Your task to perform on an android device: install app "LinkedIn" Image 0: 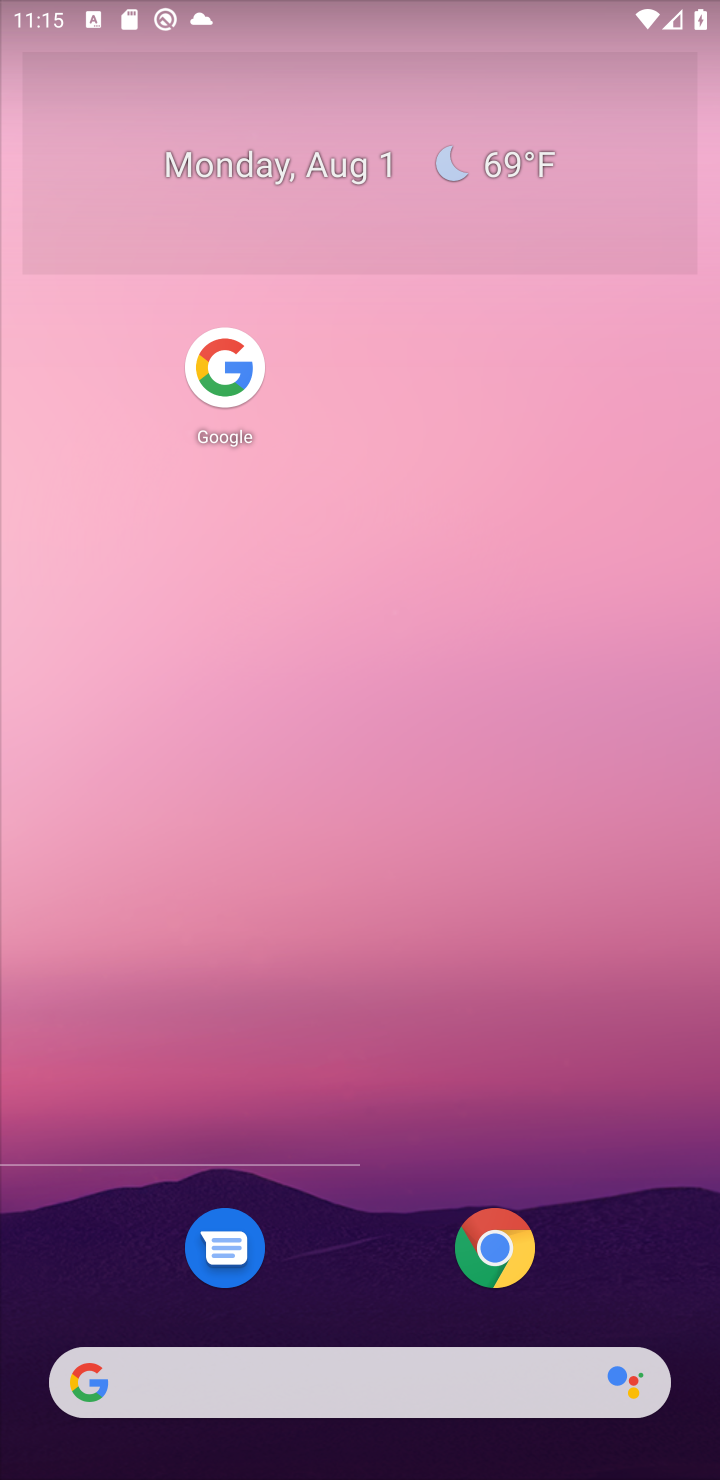
Step 0: drag from (477, 963) to (571, 129)
Your task to perform on an android device: install app "LinkedIn" Image 1: 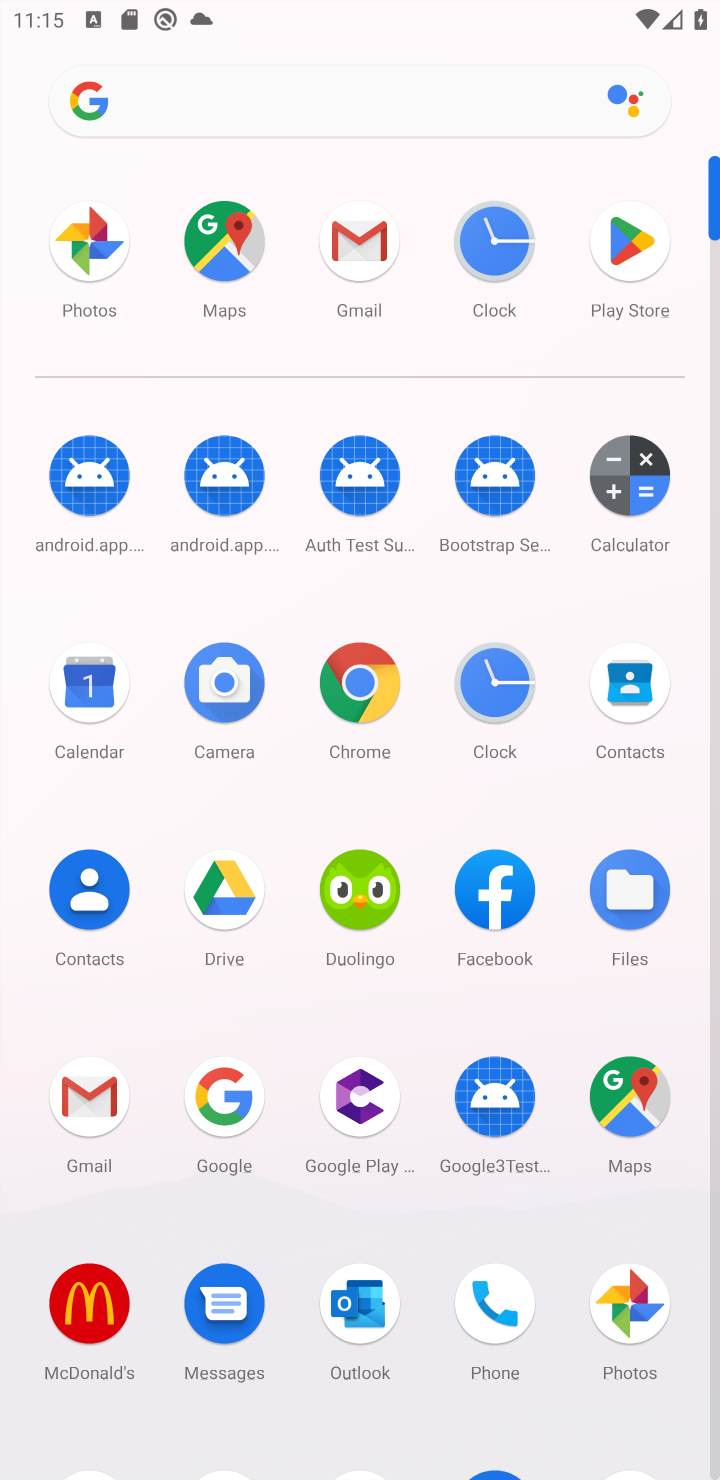
Step 1: drag from (287, 1214) to (369, 388)
Your task to perform on an android device: install app "LinkedIn" Image 2: 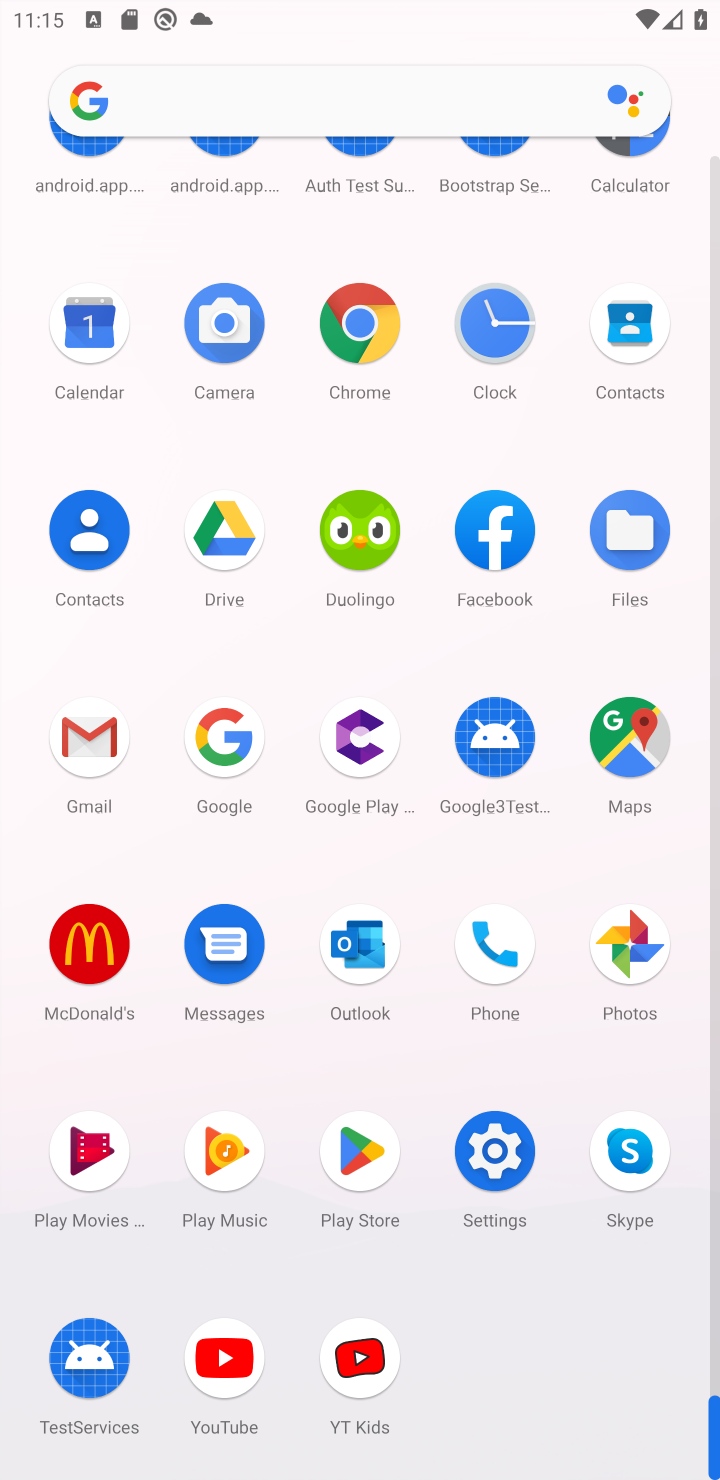
Step 2: click (363, 1153)
Your task to perform on an android device: install app "LinkedIn" Image 3: 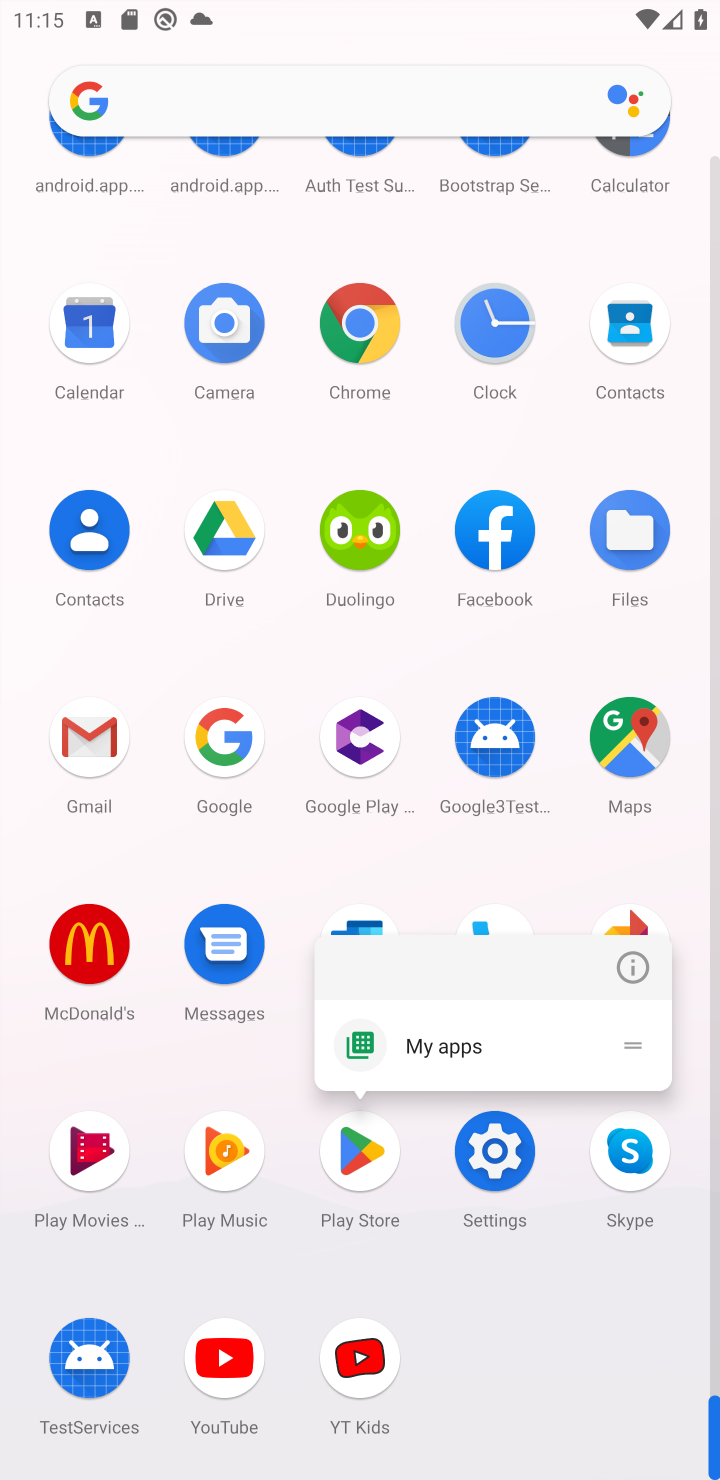
Step 3: click (360, 1149)
Your task to perform on an android device: install app "LinkedIn" Image 4: 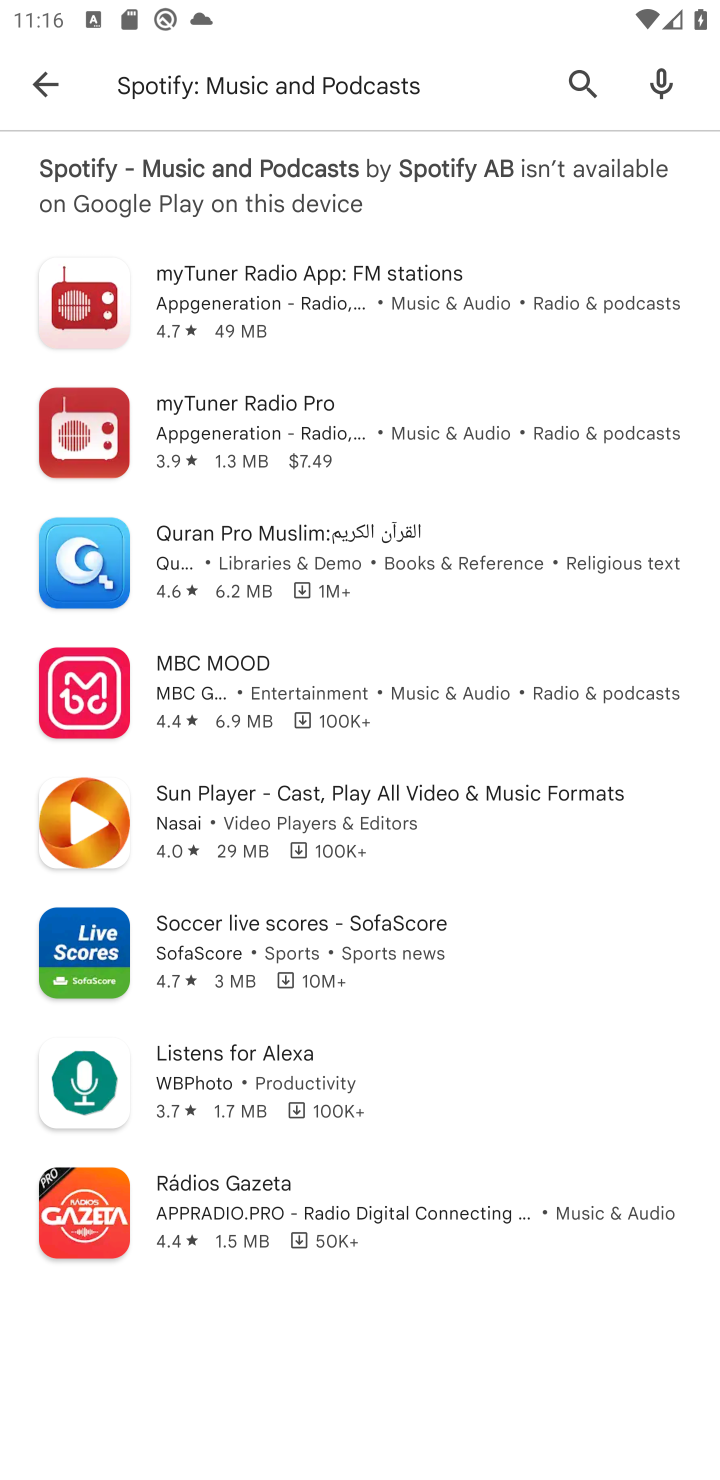
Step 4: click (422, 79)
Your task to perform on an android device: install app "LinkedIn" Image 5: 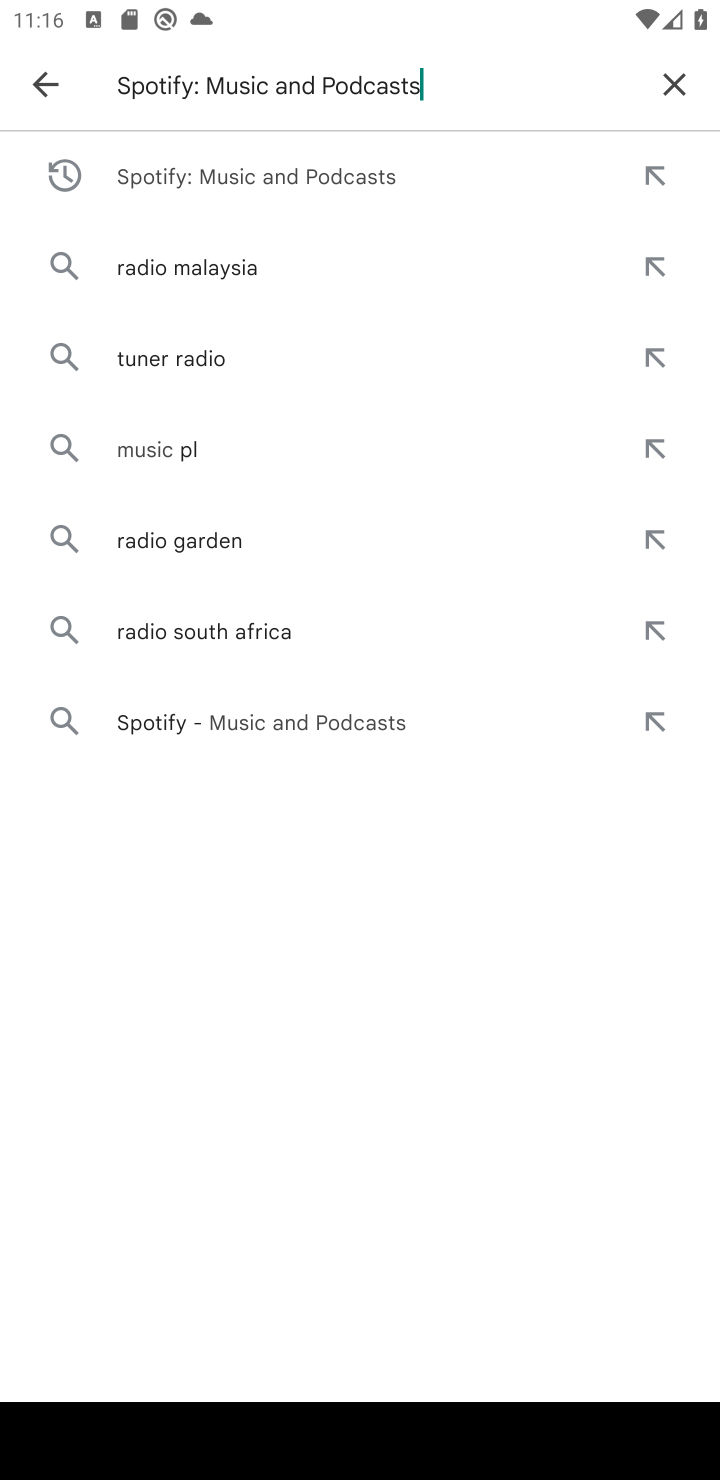
Step 5: click (689, 78)
Your task to perform on an android device: install app "LinkedIn" Image 6: 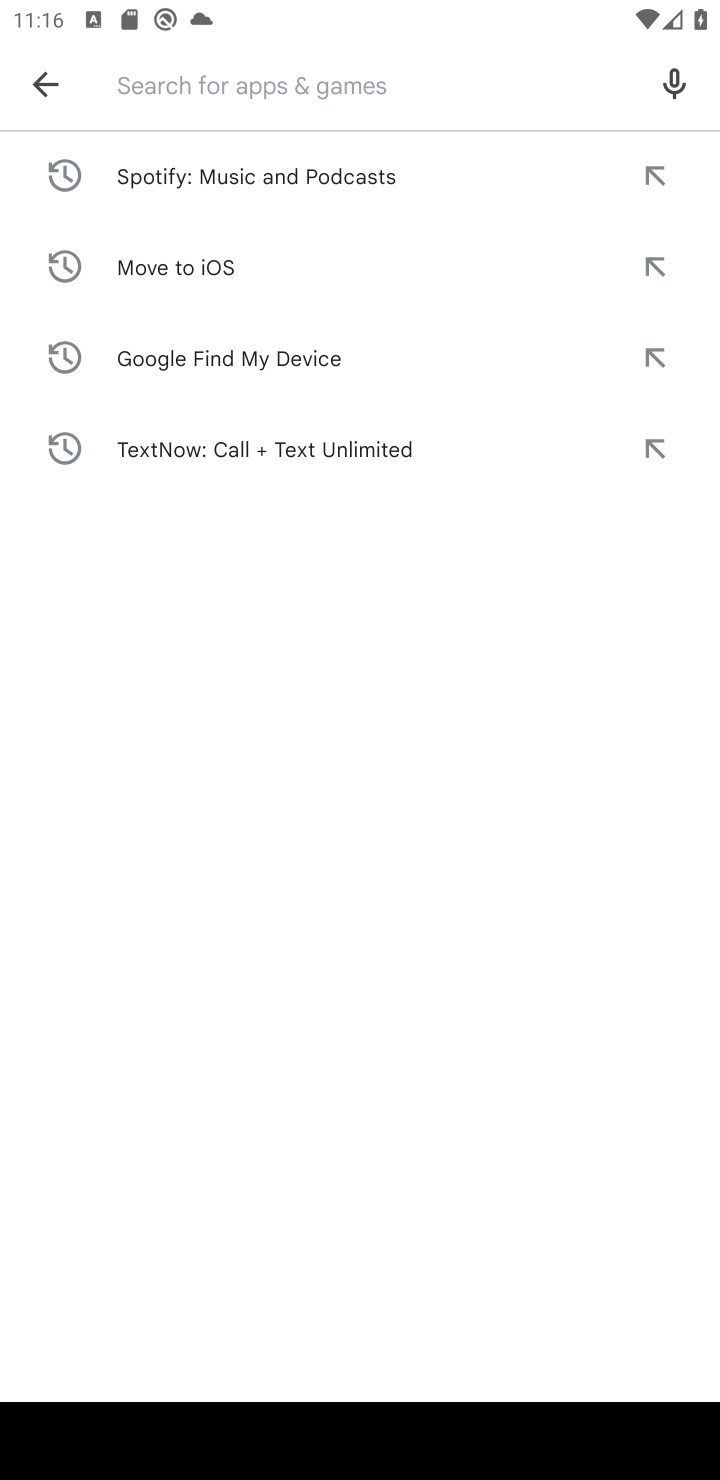
Step 6: type "Linkedln"
Your task to perform on an android device: install app "LinkedIn" Image 7: 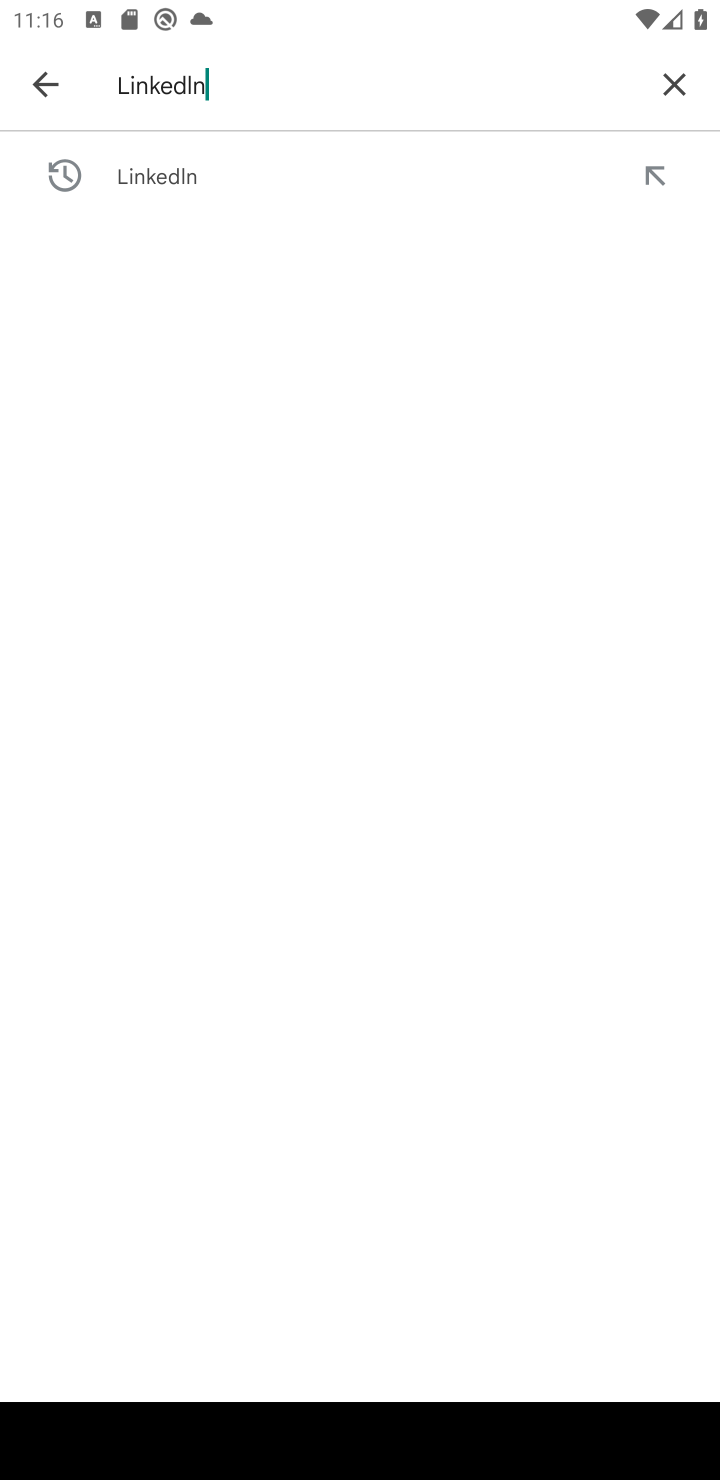
Step 7: press enter
Your task to perform on an android device: install app "LinkedIn" Image 8: 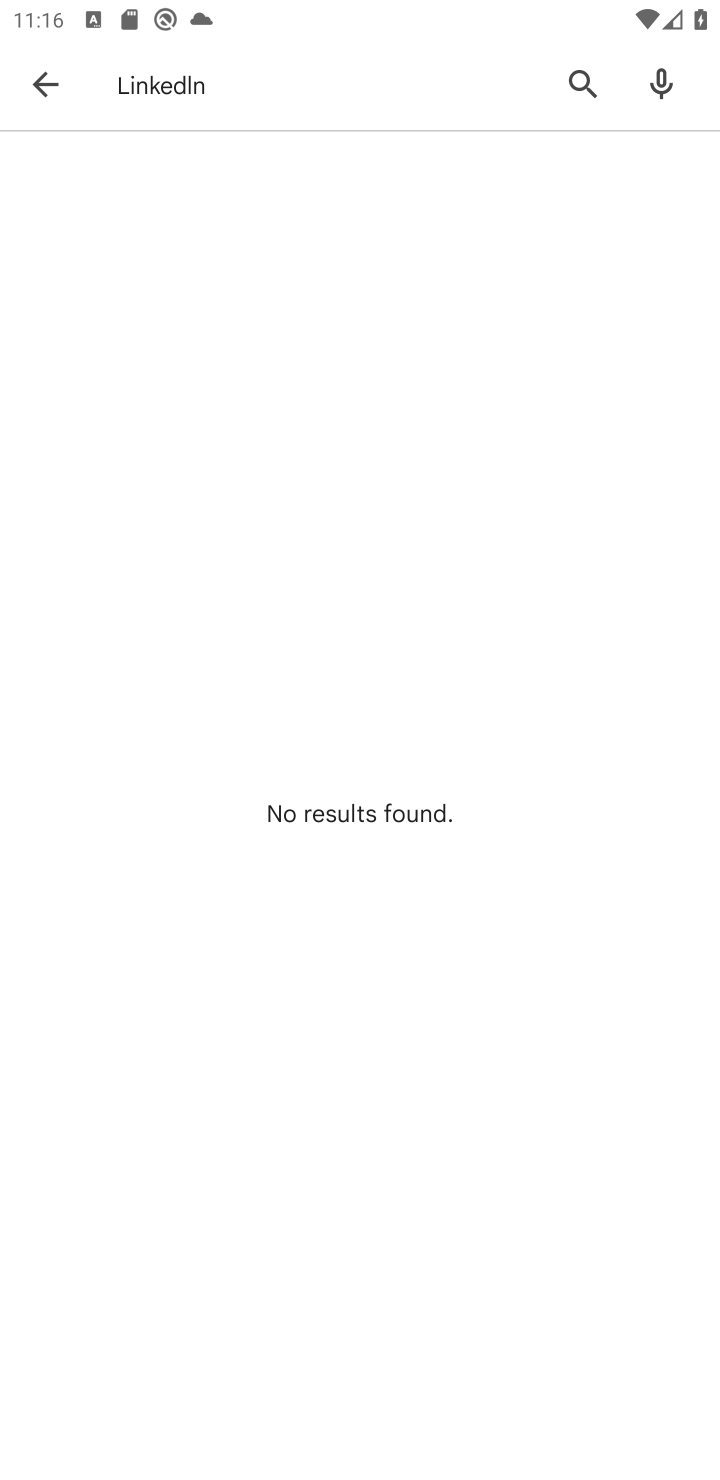
Step 8: task complete